Your task to perform on an android device: turn off notifications in google photos Image 0: 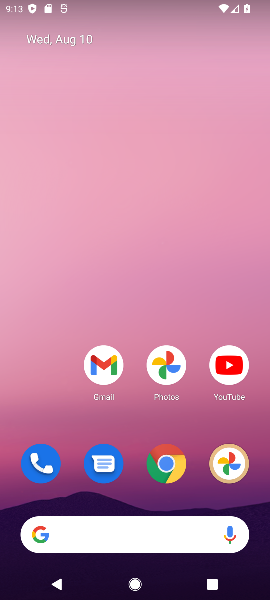
Step 0: click (159, 369)
Your task to perform on an android device: turn off notifications in google photos Image 1: 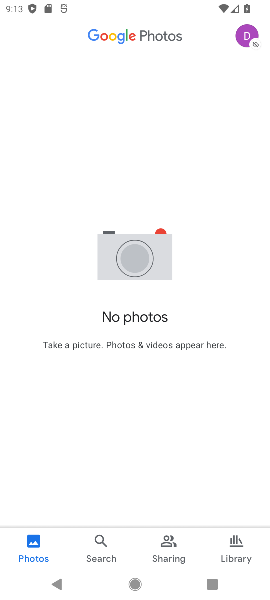
Step 1: click (241, 40)
Your task to perform on an android device: turn off notifications in google photos Image 2: 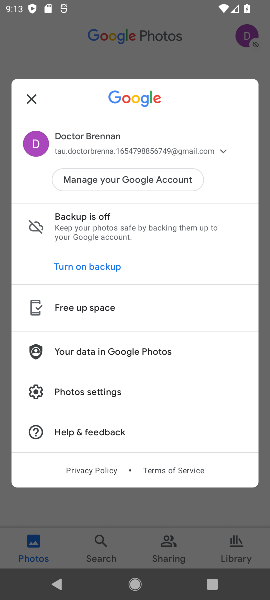
Step 2: click (80, 392)
Your task to perform on an android device: turn off notifications in google photos Image 3: 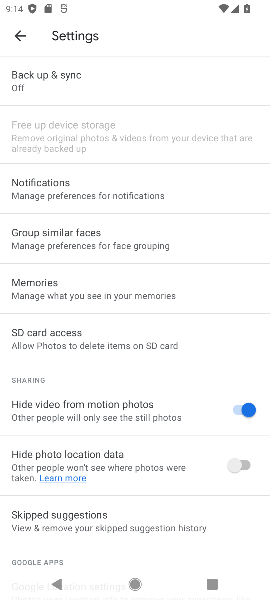
Step 3: click (91, 188)
Your task to perform on an android device: turn off notifications in google photos Image 4: 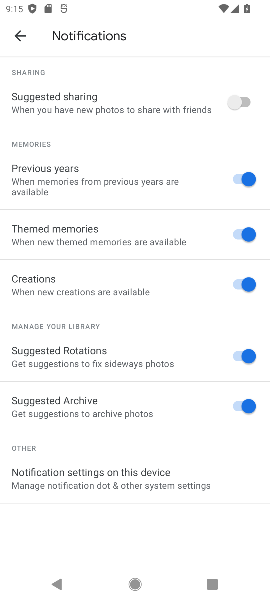
Step 4: task complete